Your task to perform on an android device: Search for sushi restaurants on Maps Image 0: 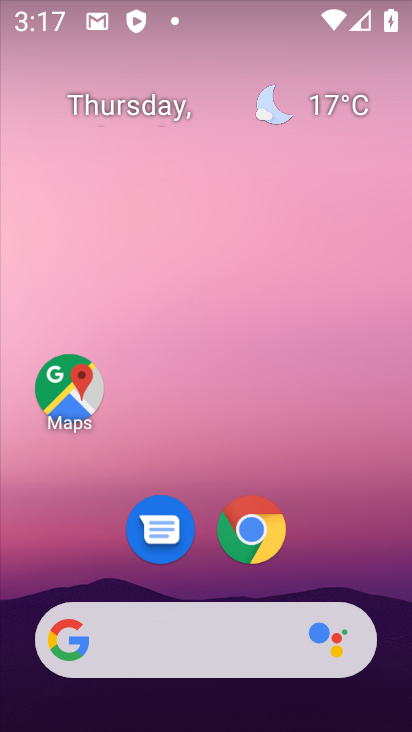
Step 0: click (62, 394)
Your task to perform on an android device: Search for sushi restaurants on Maps Image 1: 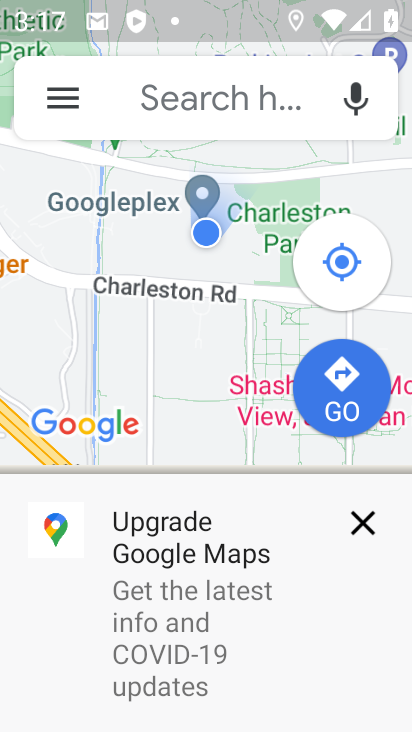
Step 1: click (213, 88)
Your task to perform on an android device: Search for sushi restaurants on Maps Image 2: 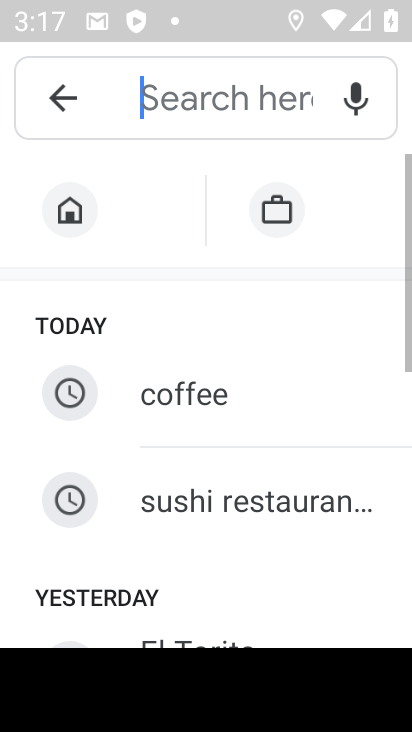
Step 2: click (206, 497)
Your task to perform on an android device: Search for sushi restaurants on Maps Image 3: 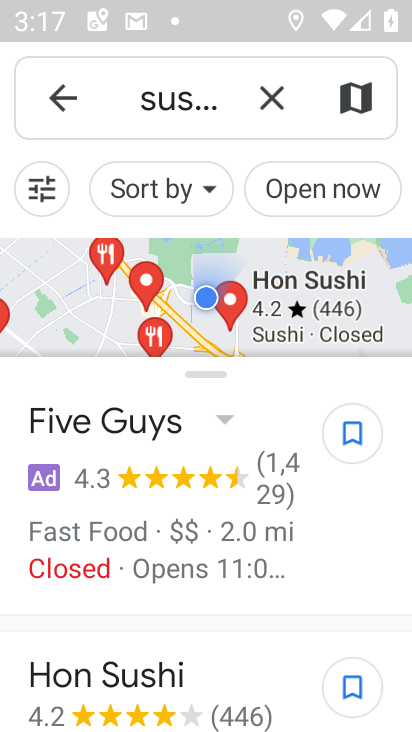
Step 3: task complete